Your task to perform on an android device: toggle show notifications on the lock screen Image 0: 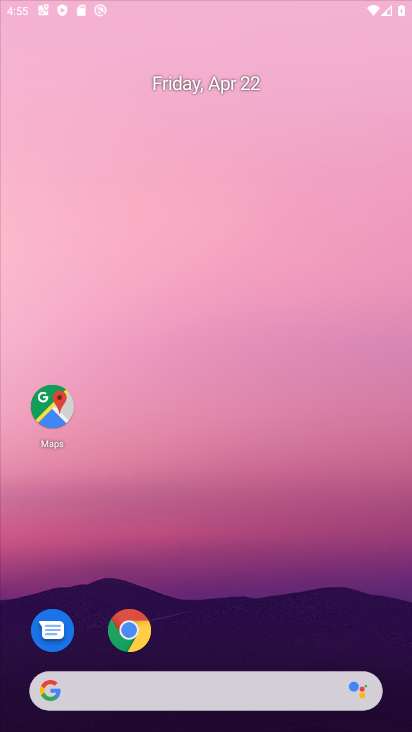
Step 0: drag from (277, 11) to (335, 7)
Your task to perform on an android device: toggle show notifications on the lock screen Image 1: 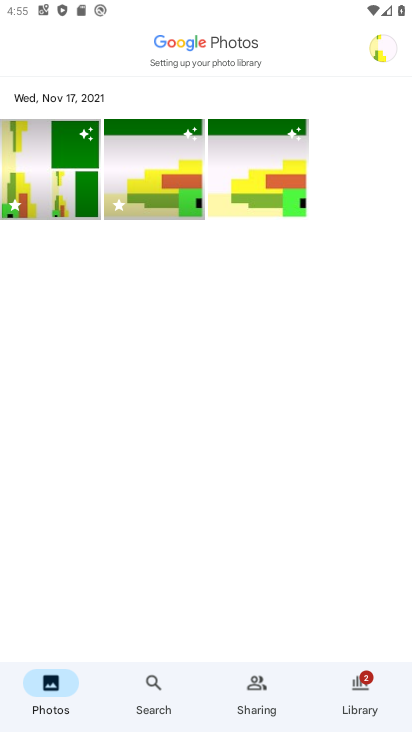
Step 1: press back button
Your task to perform on an android device: toggle show notifications on the lock screen Image 2: 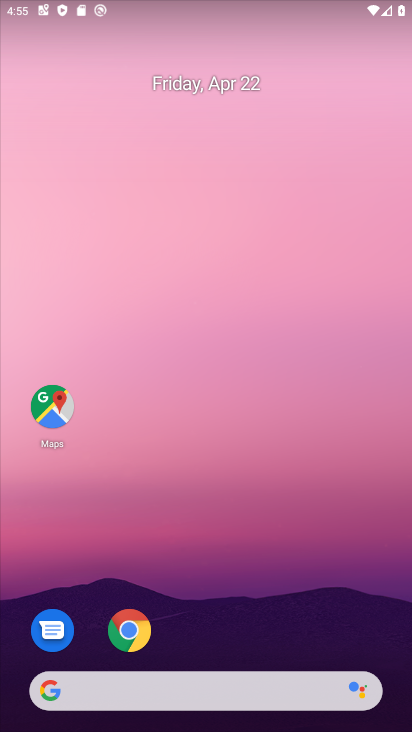
Step 2: drag from (198, 548) to (148, 168)
Your task to perform on an android device: toggle show notifications on the lock screen Image 3: 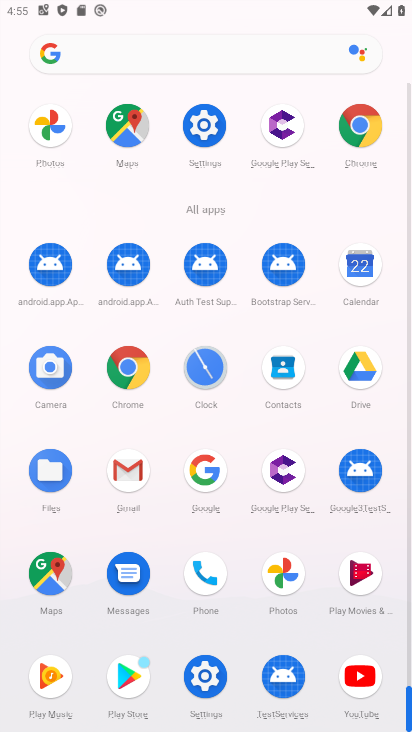
Step 3: click (201, 121)
Your task to perform on an android device: toggle show notifications on the lock screen Image 4: 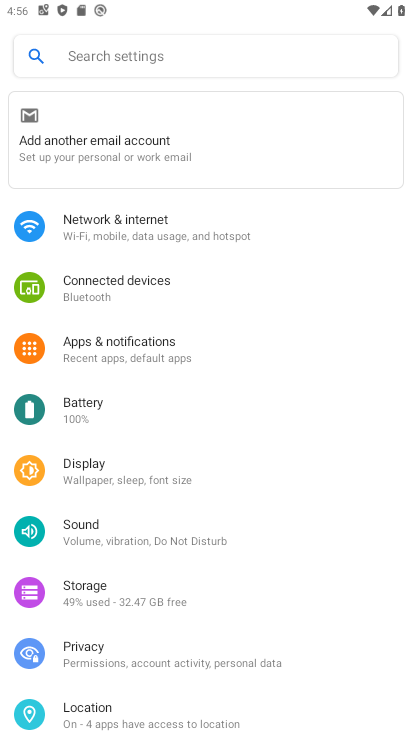
Step 4: click (173, 352)
Your task to perform on an android device: toggle show notifications on the lock screen Image 5: 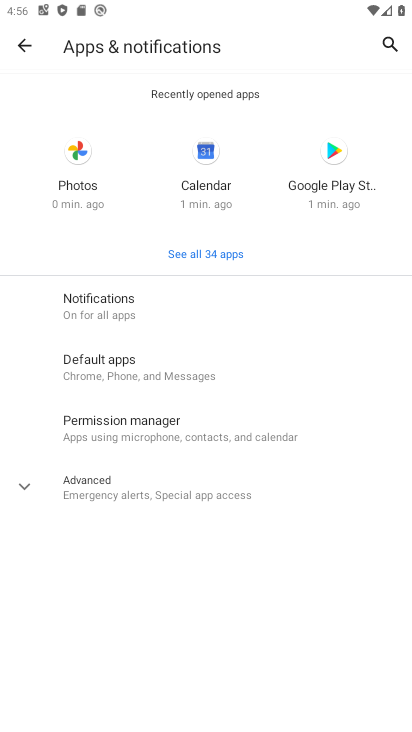
Step 5: click (36, 488)
Your task to perform on an android device: toggle show notifications on the lock screen Image 6: 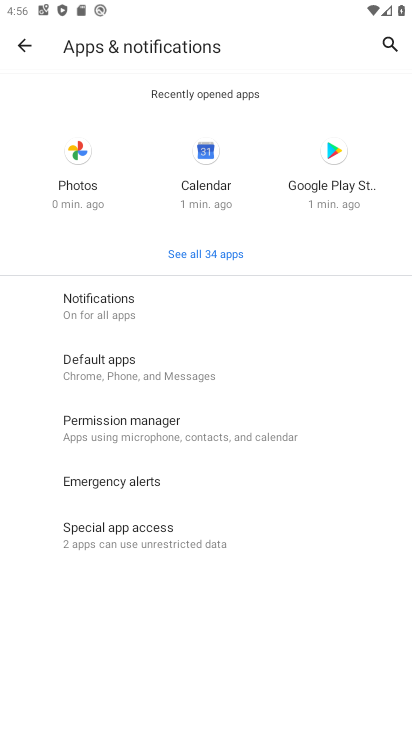
Step 6: click (125, 309)
Your task to perform on an android device: toggle show notifications on the lock screen Image 7: 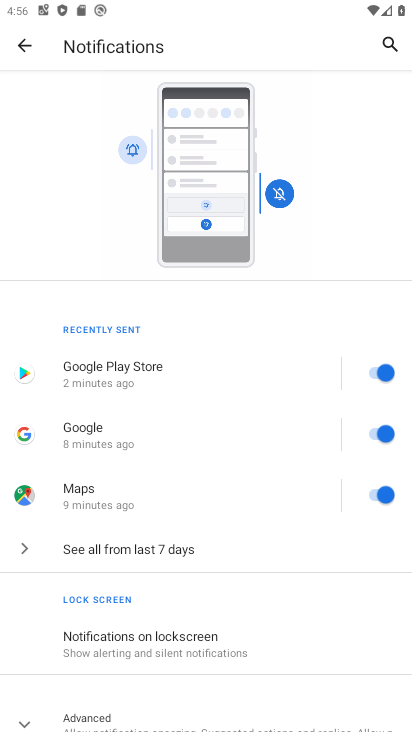
Step 7: click (216, 632)
Your task to perform on an android device: toggle show notifications on the lock screen Image 8: 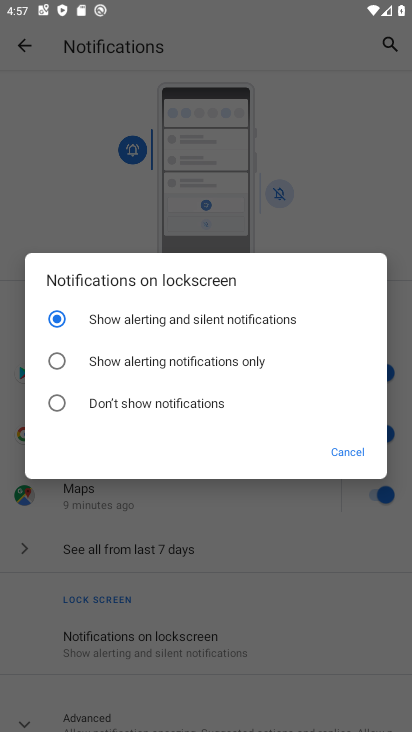
Step 8: click (150, 318)
Your task to perform on an android device: toggle show notifications on the lock screen Image 9: 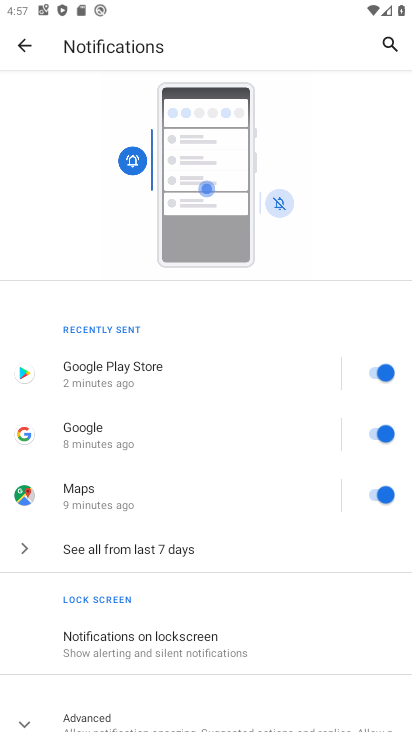
Step 9: task complete